Your task to perform on an android device: move a message to another label in the gmail app Image 0: 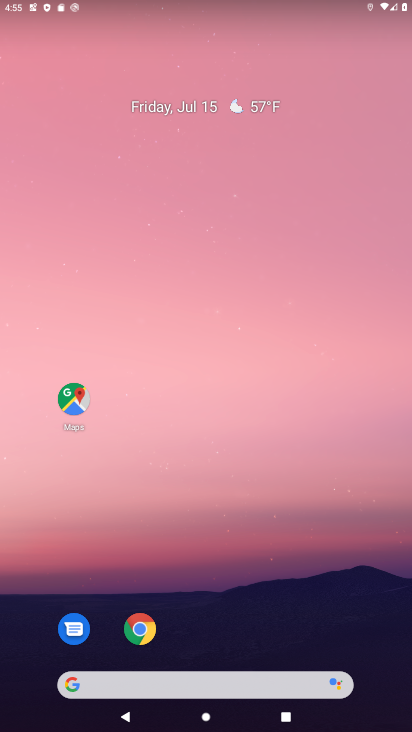
Step 0: press home button
Your task to perform on an android device: move a message to another label in the gmail app Image 1: 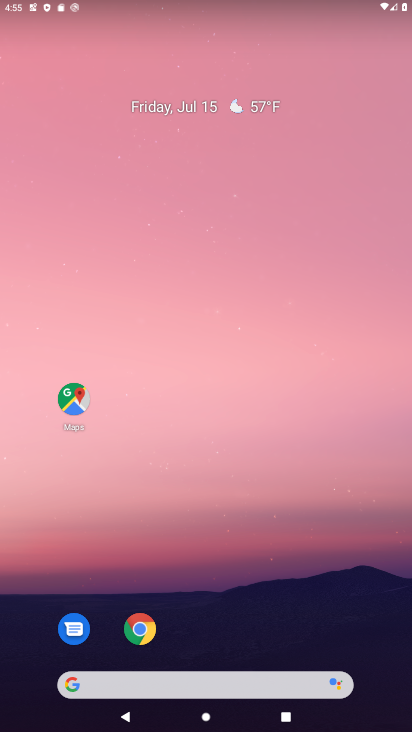
Step 1: drag from (324, 576) to (333, 28)
Your task to perform on an android device: move a message to another label in the gmail app Image 2: 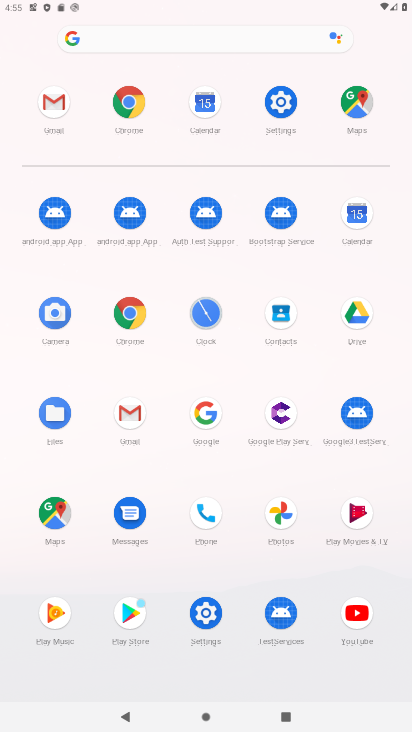
Step 2: click (59, 100)
Your task to perform on an android device: move a message to another label in the gmail app Image 3: 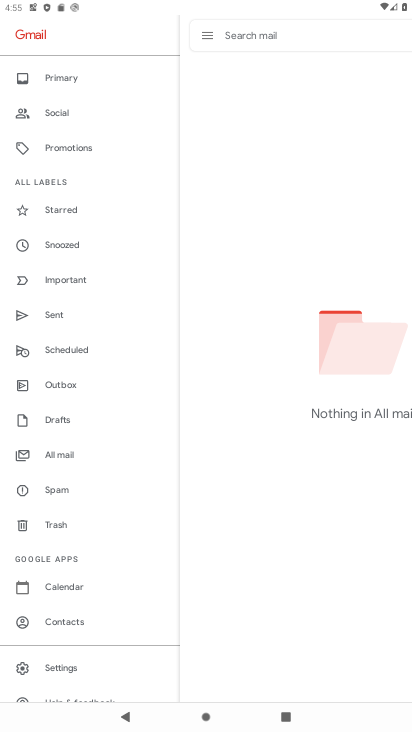
Step 3: click (48, 452)
Your task to perform on an android device: move a message to another label in the gmail app Image 4: 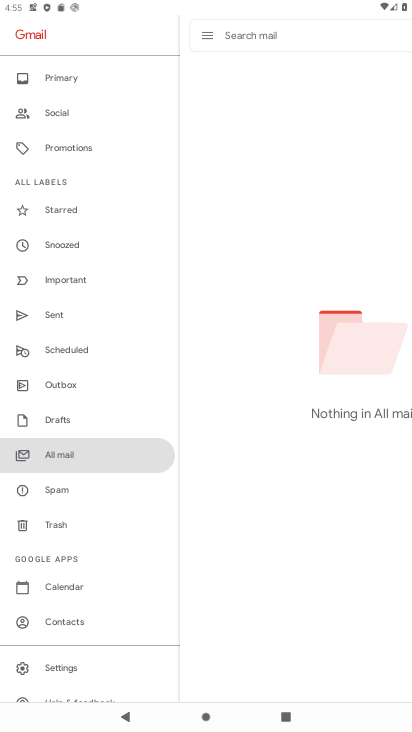
Step 4: task complete